Your task to perform on an android device: toggle priority inbox in the gmail app Image 0: 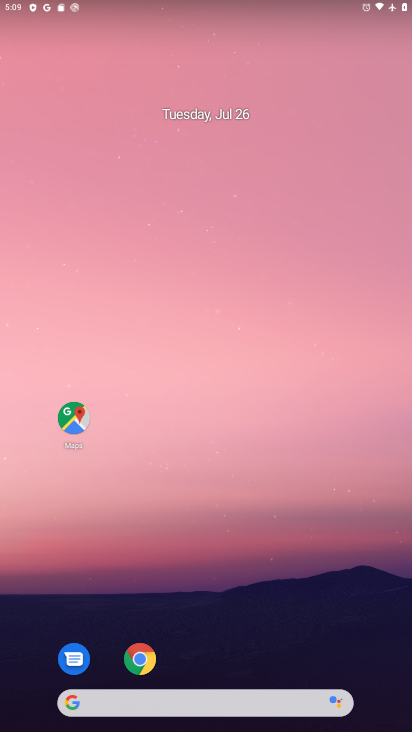
Step 0: drag from (207, 659) to (201, 108)
Your task to perform on an android device: toggle priority inbox in the gmail app Image 1: 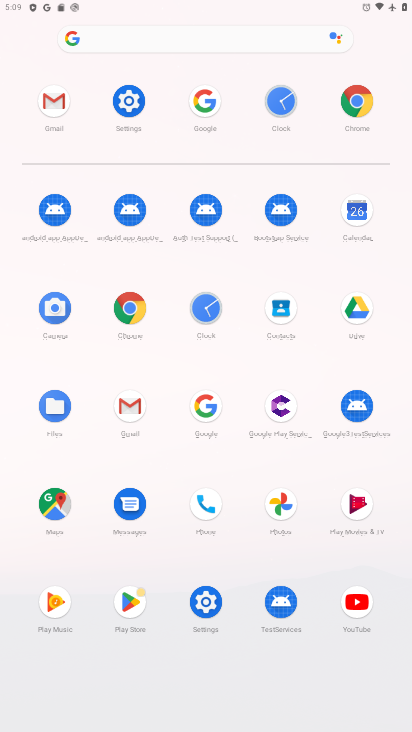
Step 1: click (131, 402)
Your task to perform on an android device: toggle priority inbox in the gmail app Image 2: 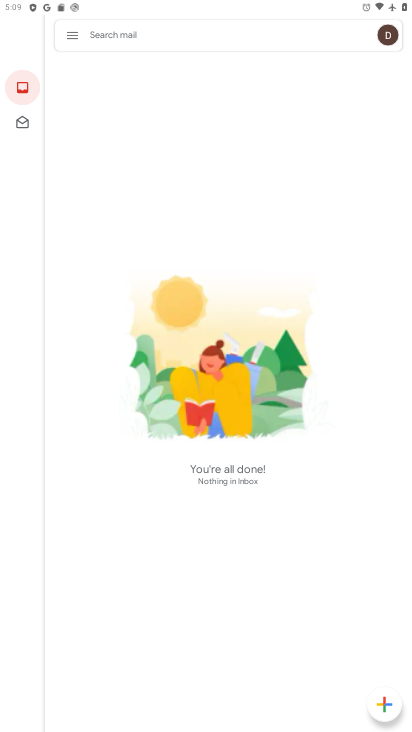
Step 2: click (73, 28)
Your task to perform on an android device: toggle priority inbox in the gmail app Image 3: 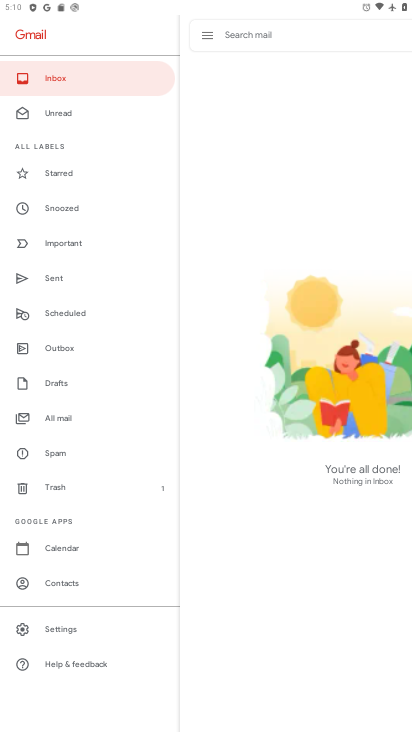
Step 3: click (84, 620)
Your task to perform on an android device: toggle priority inbox in the gmail app Image 4: 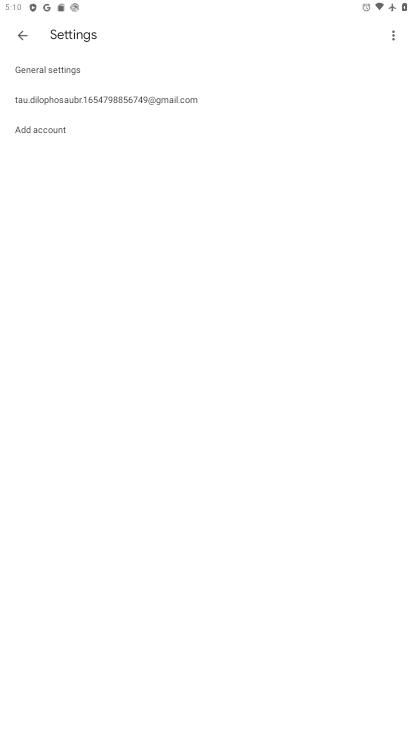
Step 4: click (143, 107)
Your task to perform on an android device: toggle priority inbox in the gmail app Image 5: 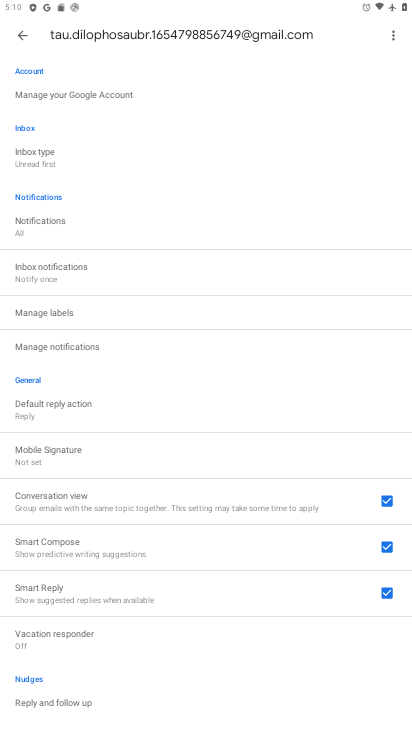
Step 5: click (70, 151)
Your task to perform on an android device: toggle priority inbox in the gmail app Image 6: 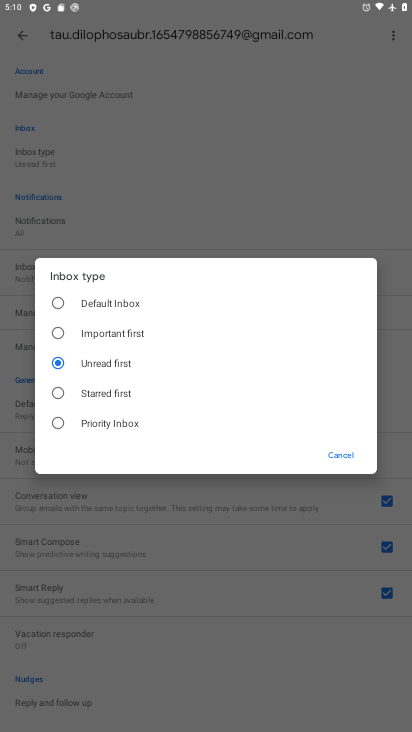
Step 6: click (52, 419)
Your task to perform on an android device: toggle priority inbox in the gmail app Image 7: 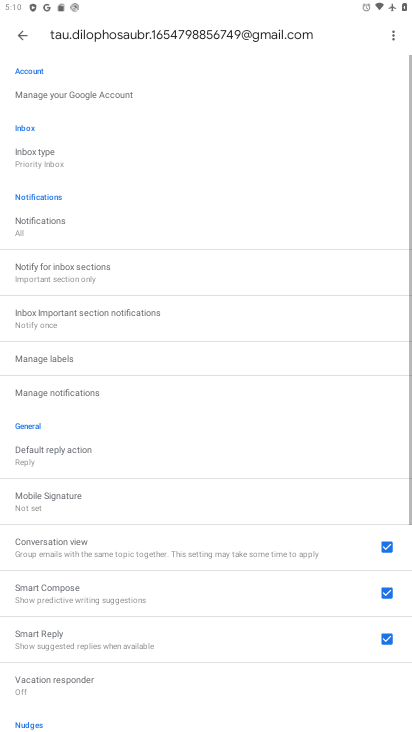
Step 7: task complete